Your task to perform on an android device: visit the assistant section in the google photos Image 0: 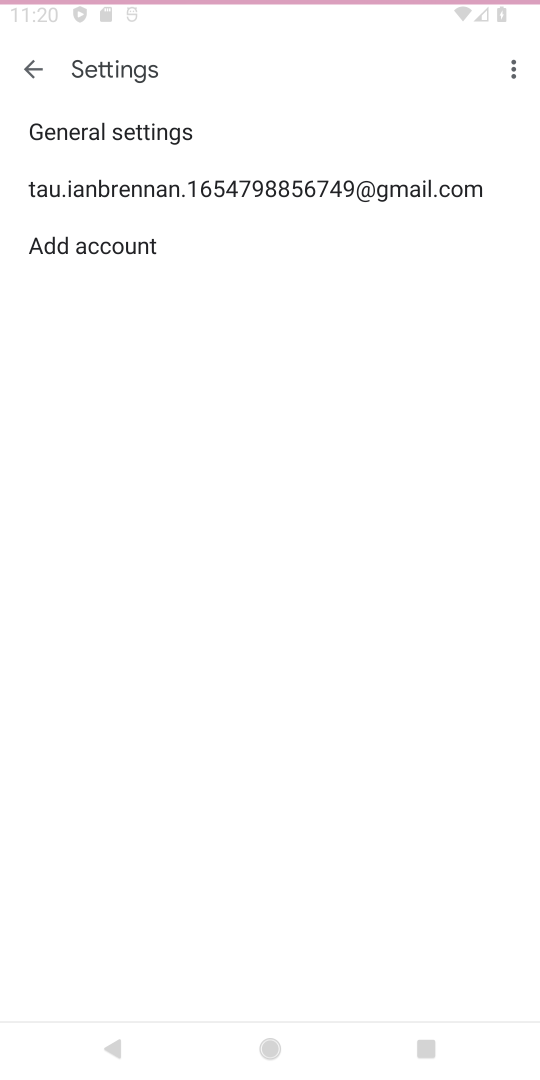
Step 0: press home button
Your task to perform on an android device: visit the assistant section in the google photos Image 1: 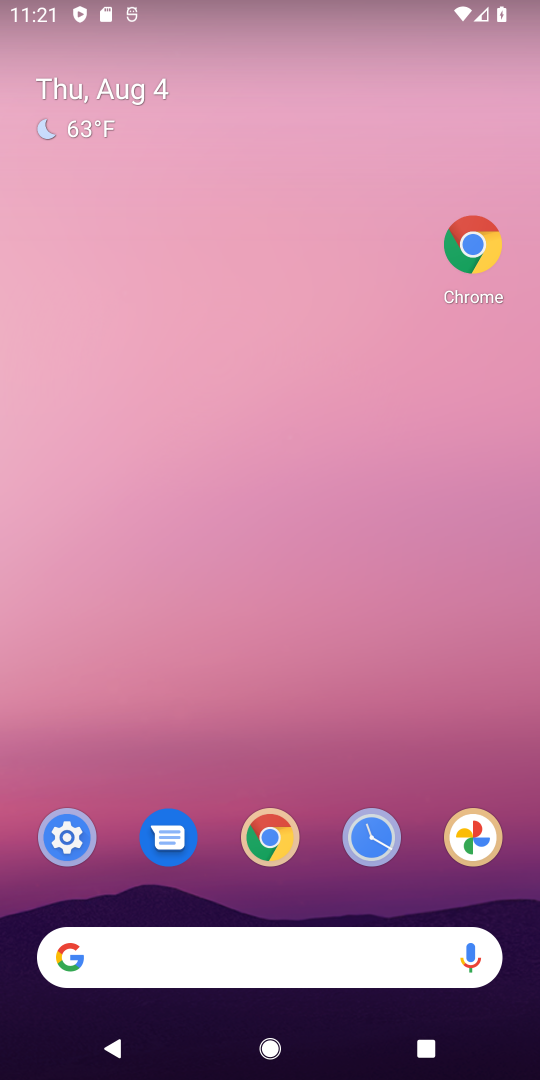
Step 1: press home button
Your task to perform on an android device: visit the assistant section in the google photos Image 2: 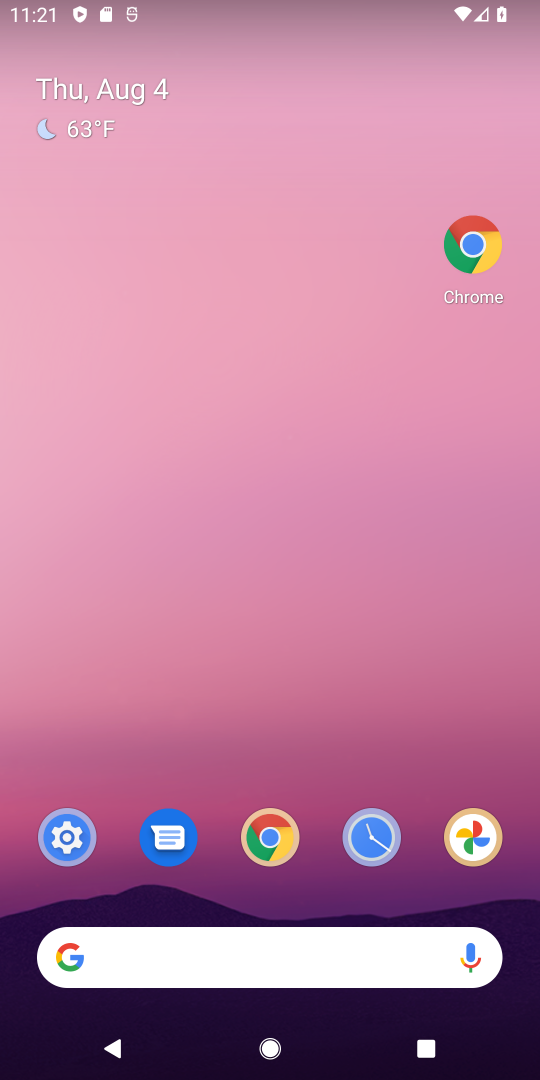
Step 2: drag from (332, 893) to (334, 137)
Your task to perform on an android device: visit the assistant section in the google photos Image 3: 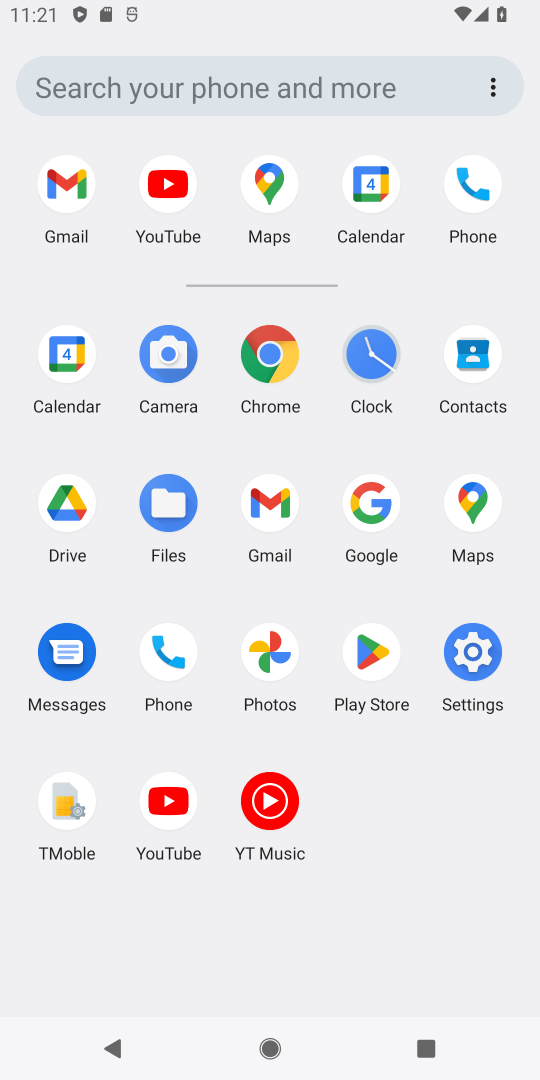
Step 3: click (270, 651)
Your task to perform on an android device: visit the assistant section in the google photos Image 4: 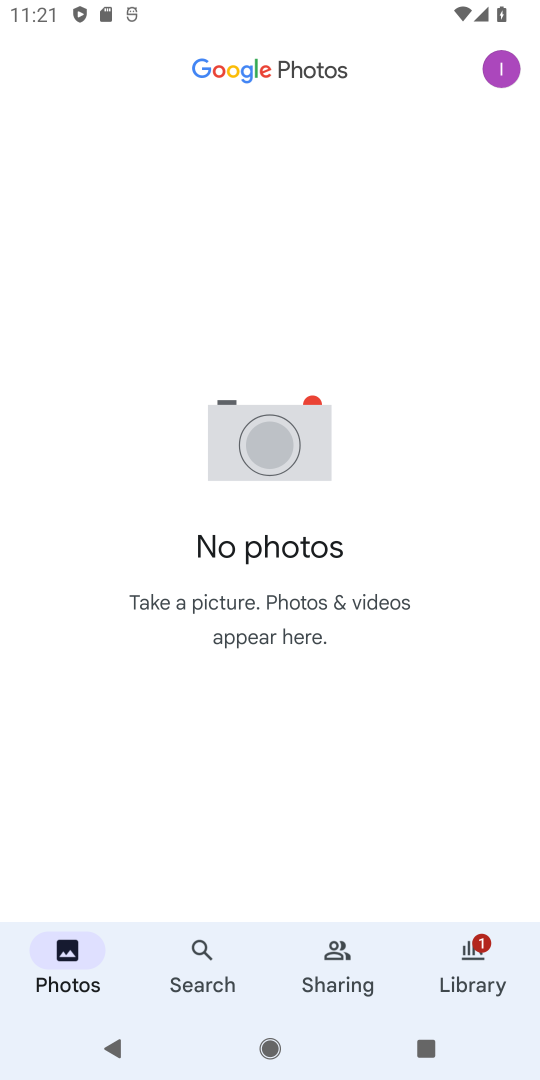
Step 4: click (200, 952)
Your task to perform on an android device: visit the assistant section in the google photos Image 5: 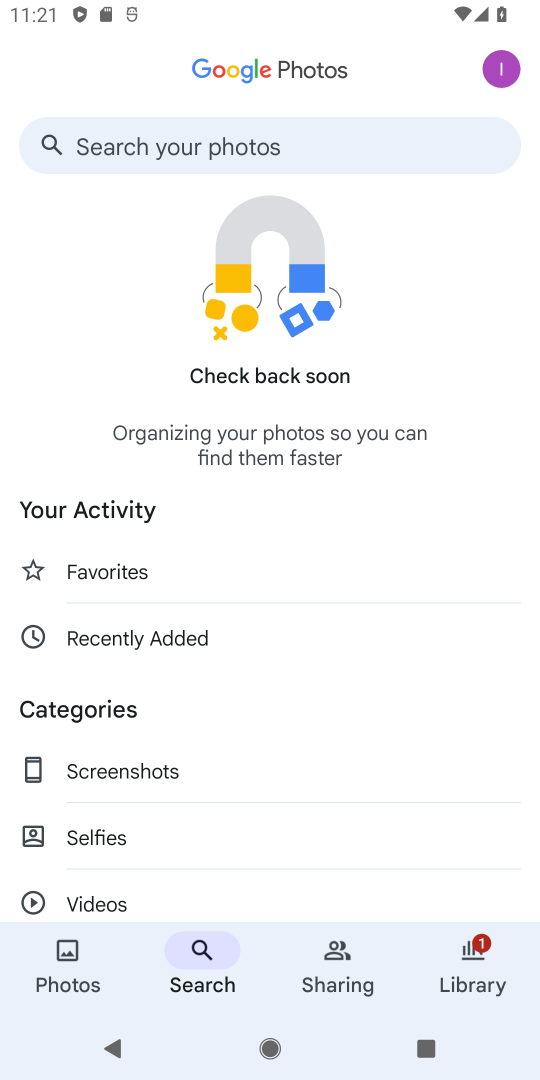
Step 5: task complete